Your task to perform on an android device: change the clock style Image 0: 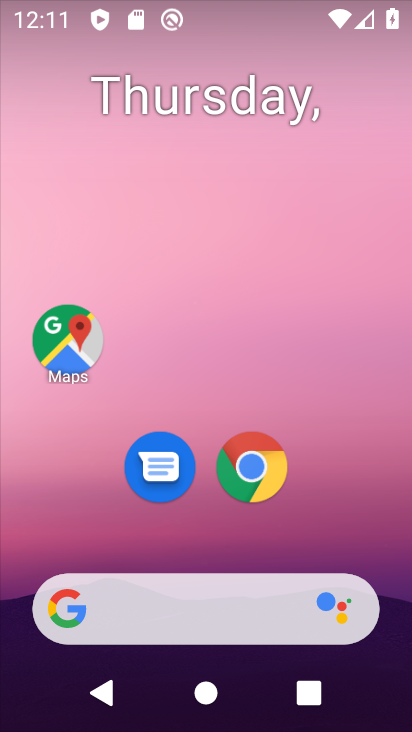
Step 0: drag from (357, 503) to (156, 214)
Your task to perform on an android device: change the clock style Image 1: 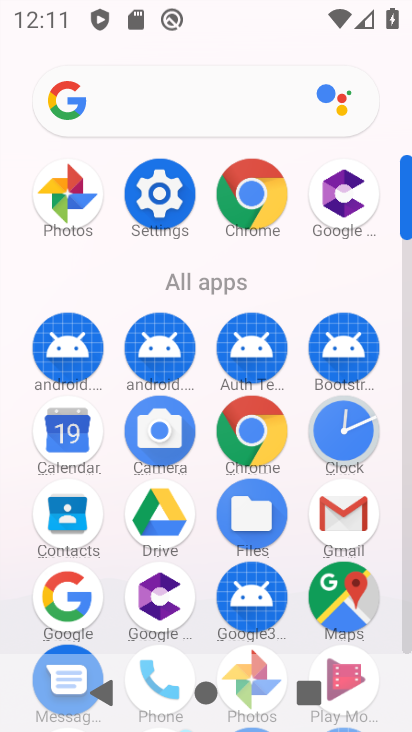
Step 1: click (60, 20)
Your task to perform on an android device: change the clock style Image 2: 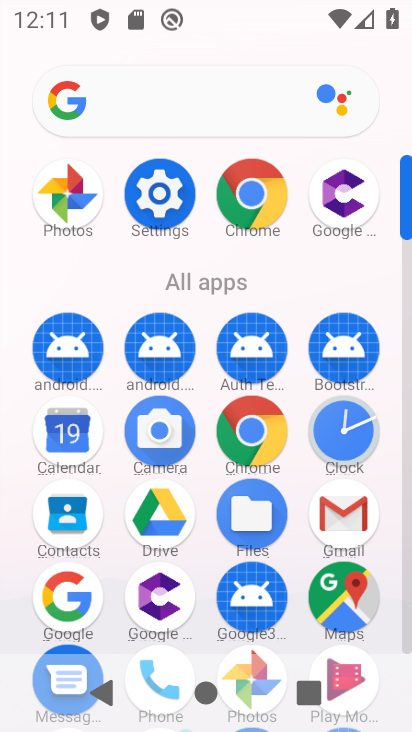
Step 2: click (57, 19)
Your task to perform on an android device: change the clock style Image 3: 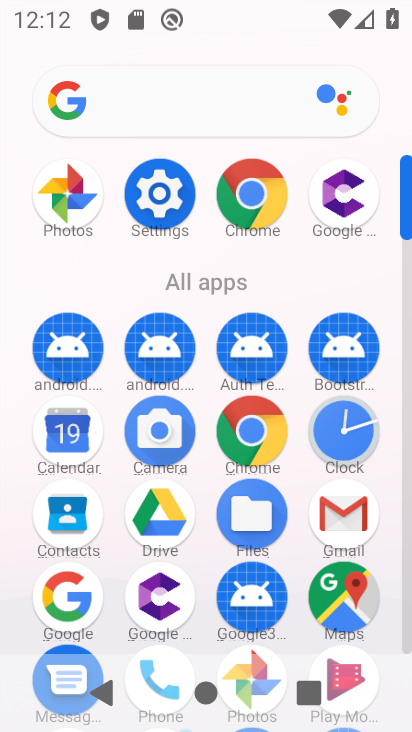
Step 3: click (331, 422)
Your task to perform on an android device: change the clock style Image 4: 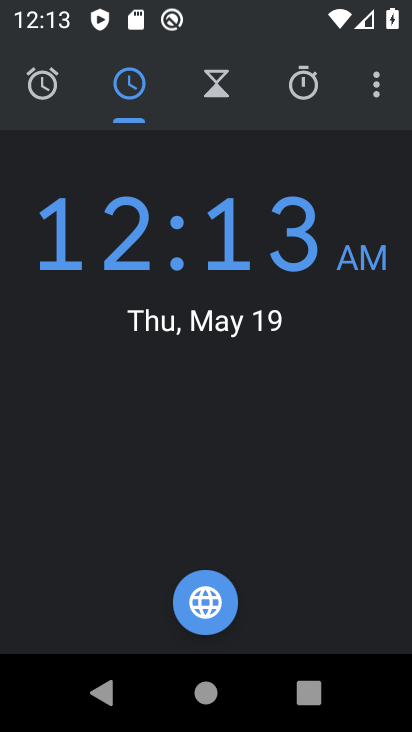
Step 4: click (382, 84)
Your task to perform on an android device: change the clock style Image 5: 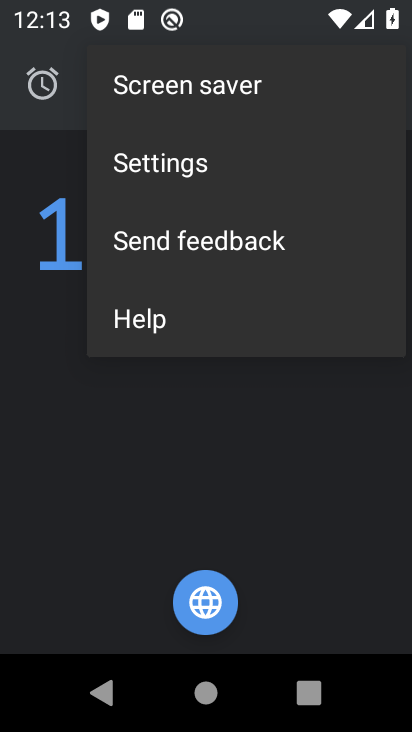
Step 5: click (151, 164)
Your task to perform on an android device: change the clock style Image 6: 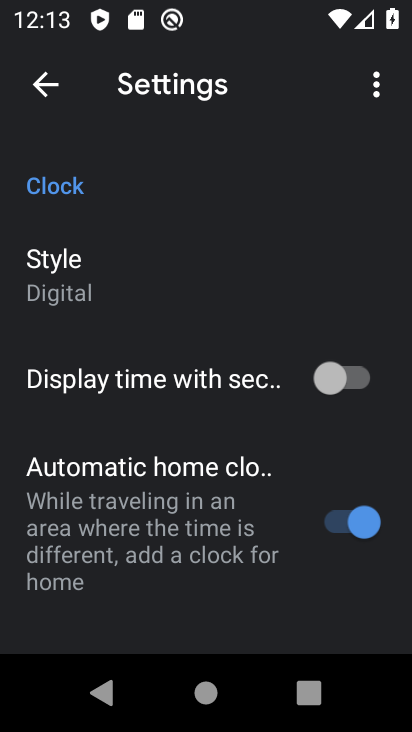
Step 6: click (57, 270)
Your task to perform on an android device: change the clock style Image 7: 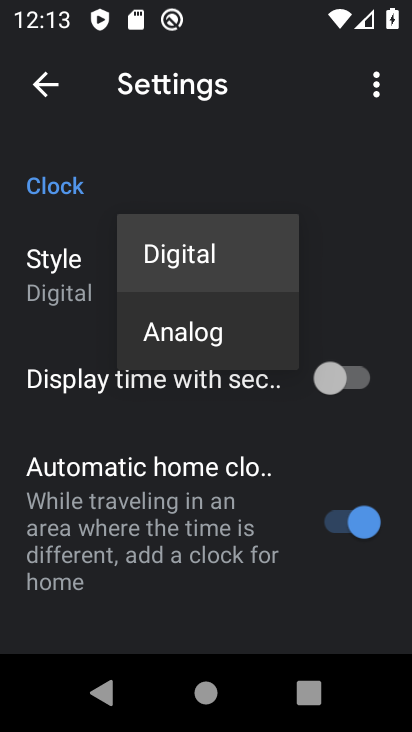
Step 7: click (184, 258)
Your task to perform on an android device: change the clock style Image 8: 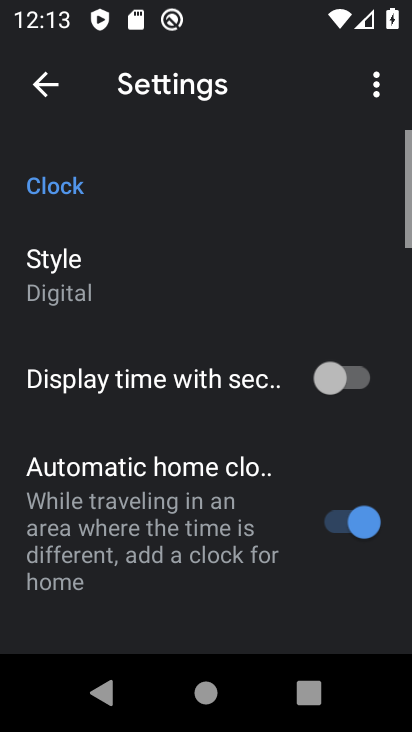
Step 8: click (52, 279)
Your task to perform on an android device: change the clock style Image 9: 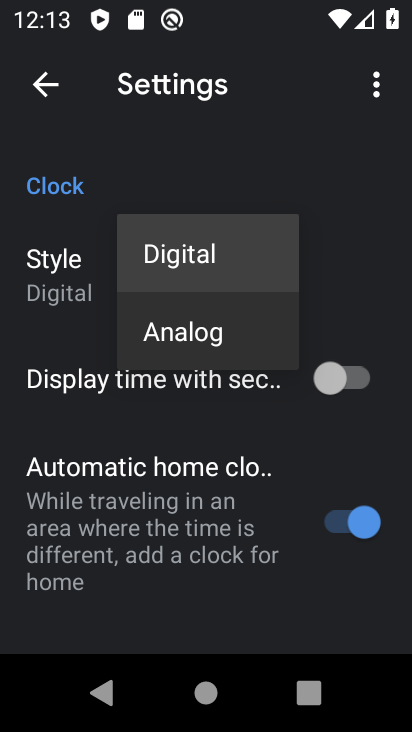
Step 9: click (205, 332)
Your task to perform on an android device: change the clock style Image 10: 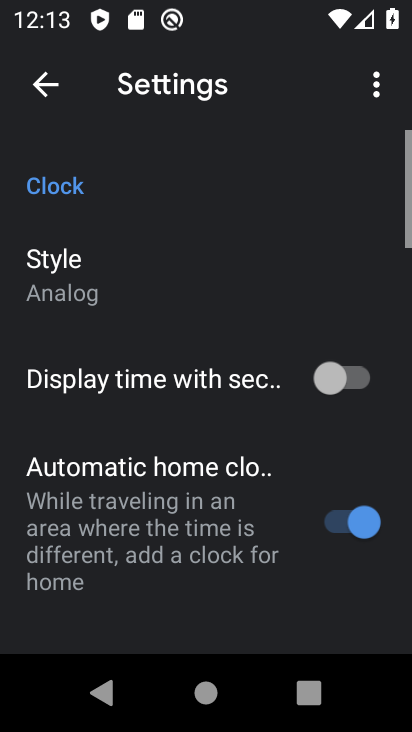
Step 10: task complete